Your task to perform on an android device: open chrome privacy settings Image 0: 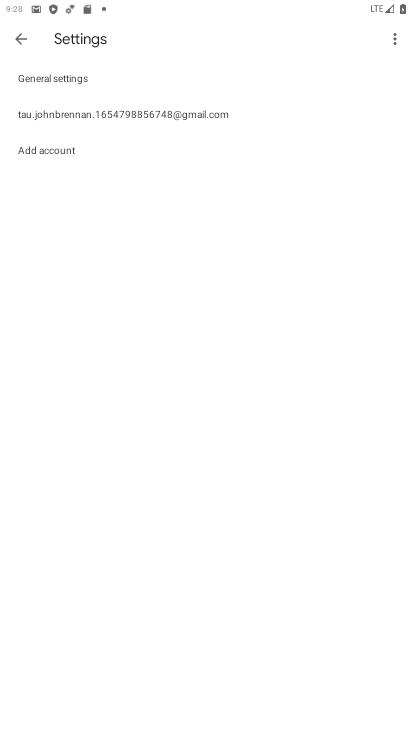
Step 0: press home button
Your task to perform on an android device: open chrome privacy settings Image 1: 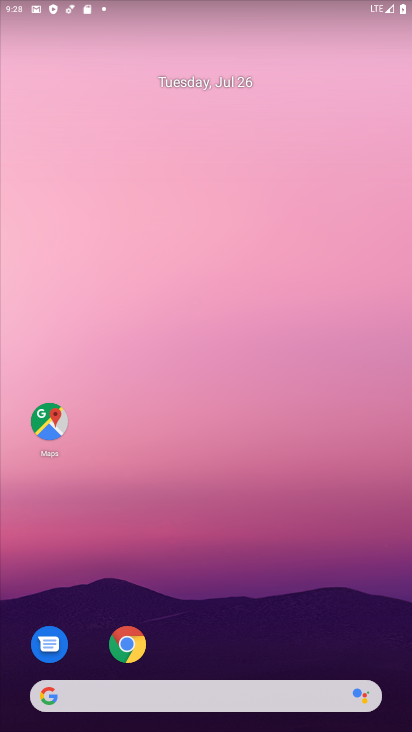
Step 1: click (134, 648)
Your task to perform on an android device: open chrome privacy settings Image 2: 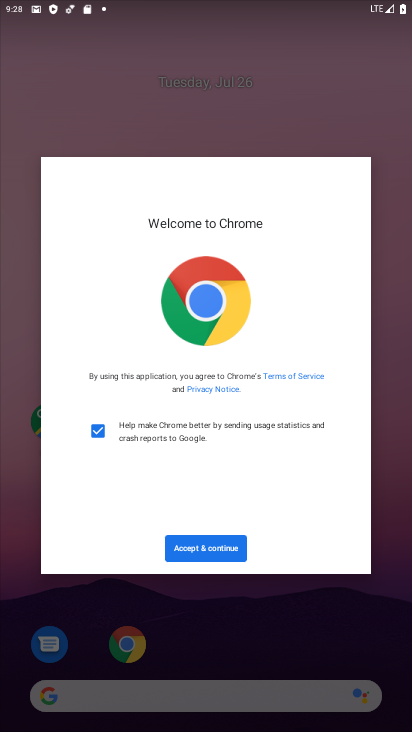
Step 2: click (220, 553)
Your task to perform on an android device: open chrome privacy settings Image 3: 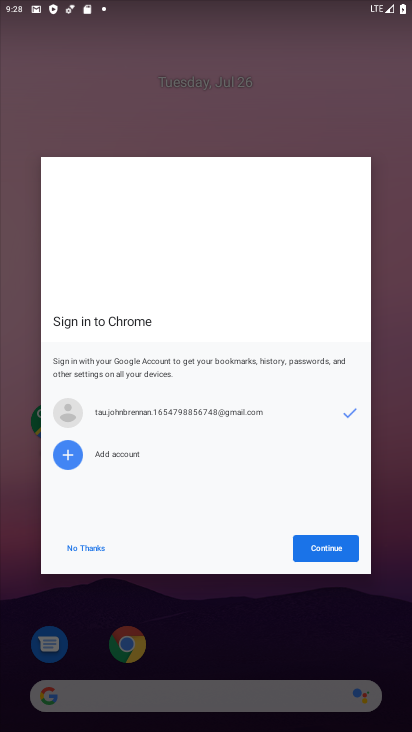
Step 3: click (87, 552)
Your task to perform on an android device: open chrome privacy settings Image 4: 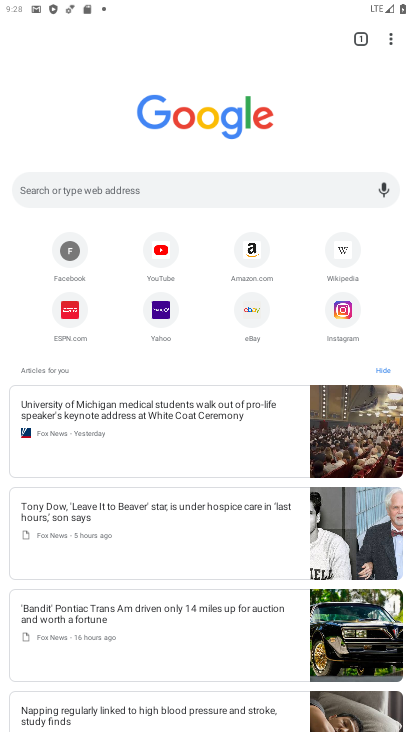
Step 4: click (394, 40)
Your task to perform on an android device: open chrome privacy settings Image 5: 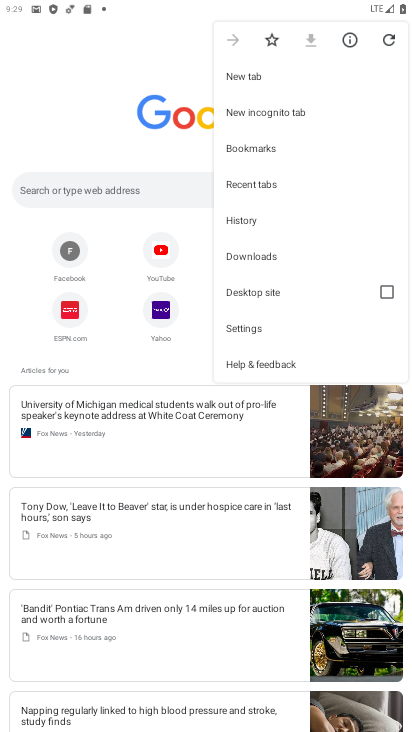
Step 5: click (248, 328)
Your task to perform on an android device: open chrome privacy settings Image 6: 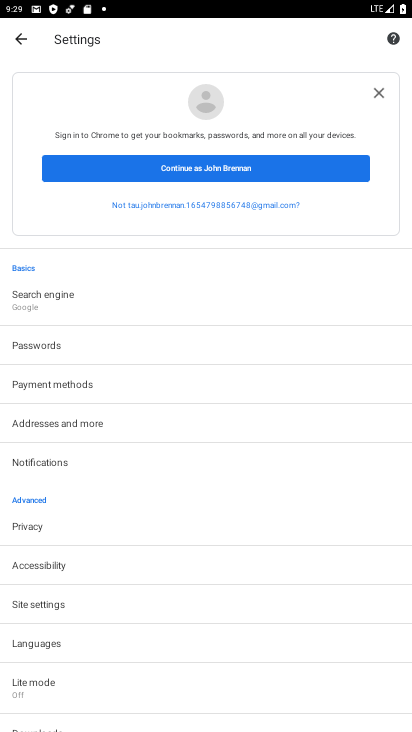
Step 6: click (26, 524)
Your task to perform on an android device: open chrome privacy settings Image 7: 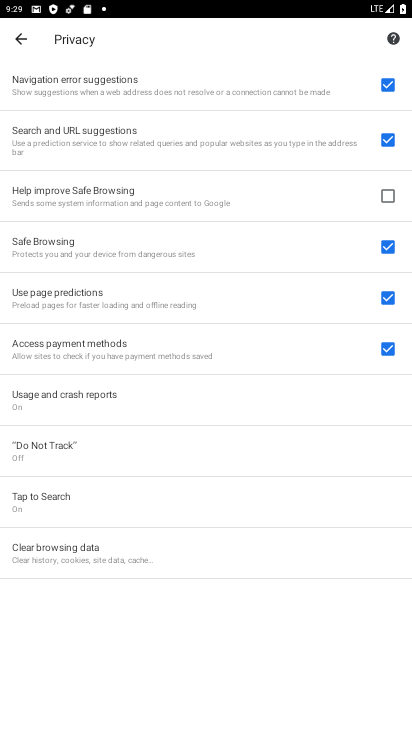
Step 7: task complete